Your task to perform on an android device: Open Google Chrome and open the bookmarks view Image 0: 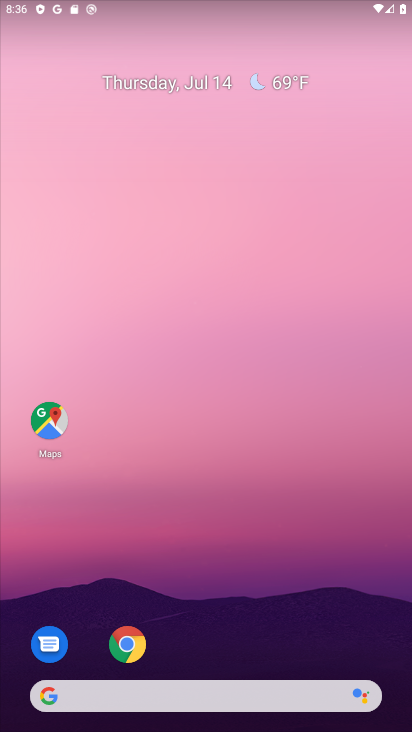
Step 0: click (139, 647)
Your task to perform on an android device: Open Google Chrome and open the bookmarks view Image 1: 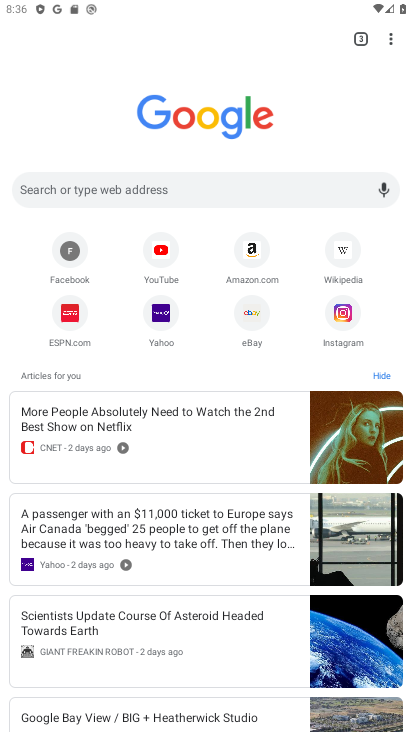
Step 1: click (394, 39)
Your task to perform on an android device: Open Google Chrome and open the bookmarks view Image 2: 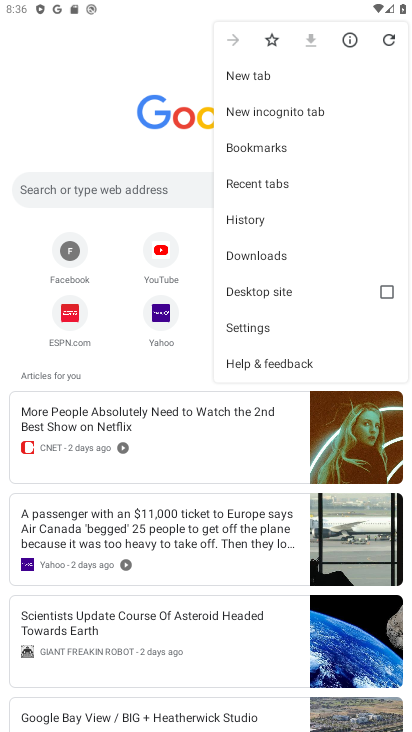
Step 2: click (300, 159)
Your task to perform on an android device: Open Google Chrome and open the bookmarks view Image 3: 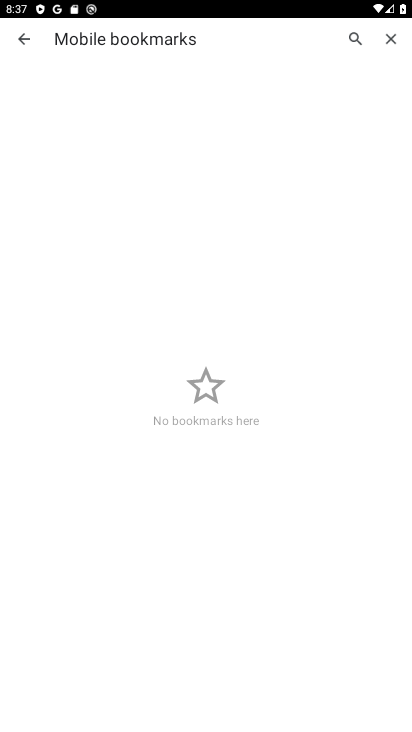
Step 3: task complete